Your task to perform on an android device: Go to Google maps Image 0: 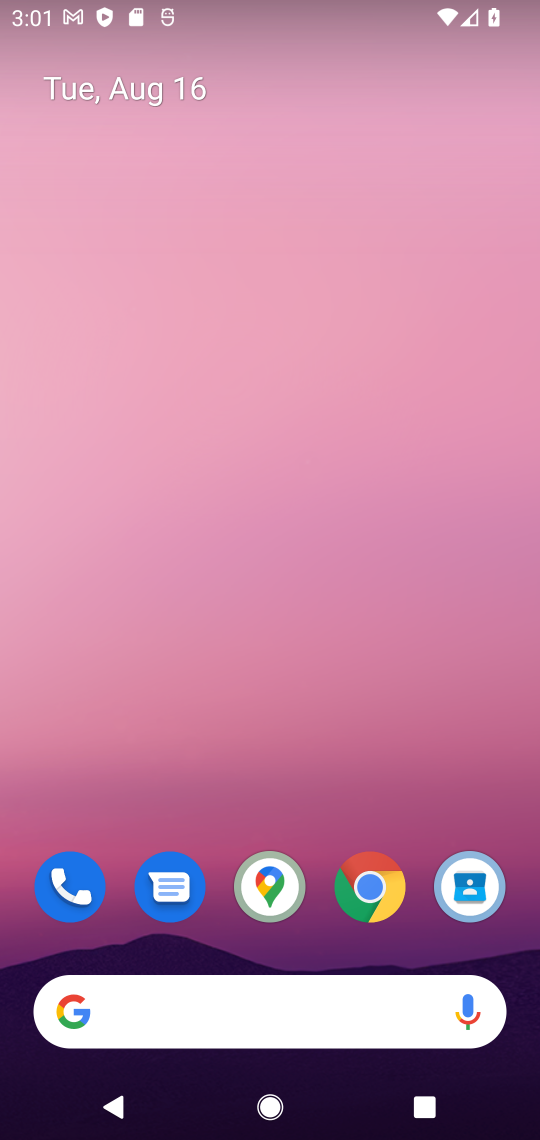
Step 0: drag from (295, 765) to (321, 13)
Your task to perform on an android device: Go to Google maps Image 1: 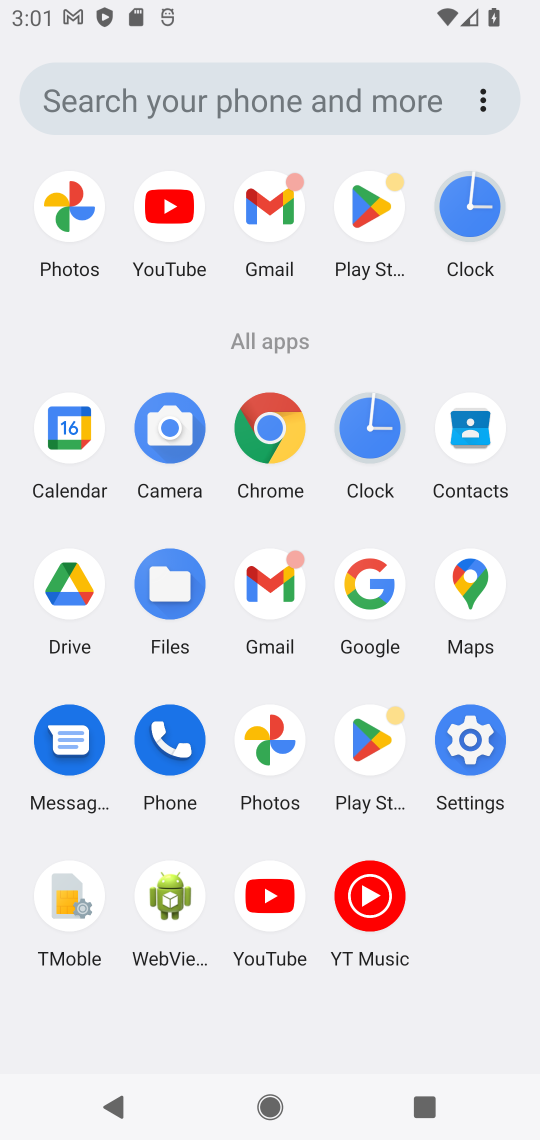
Step 1: click (473, 560)
Your task to perform on an android device: Go to Google maps Image 2: 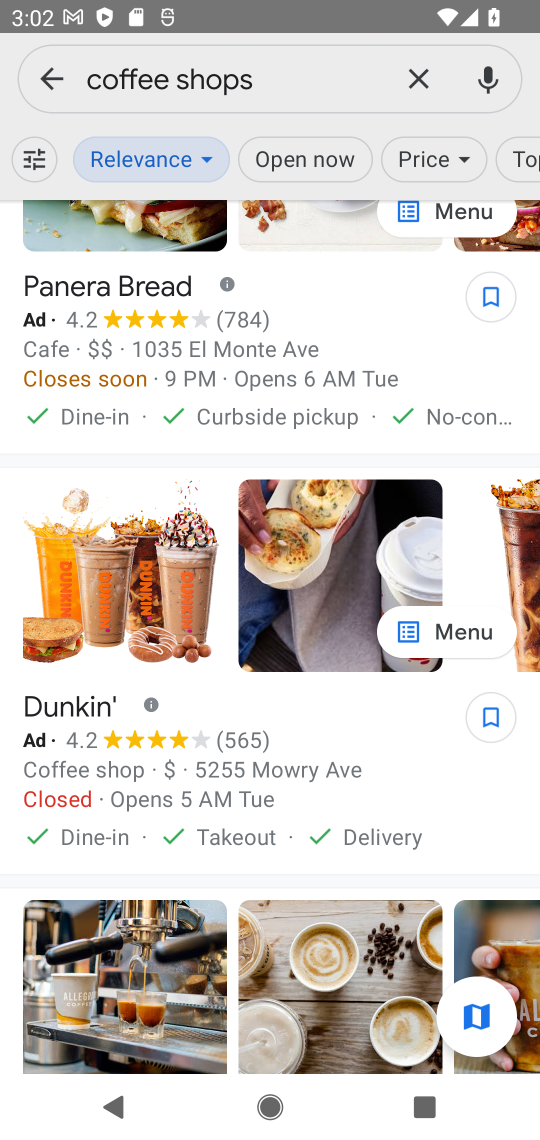
Step 2: task complete